Your task to perform on an android device: Open notification settings Image 0: 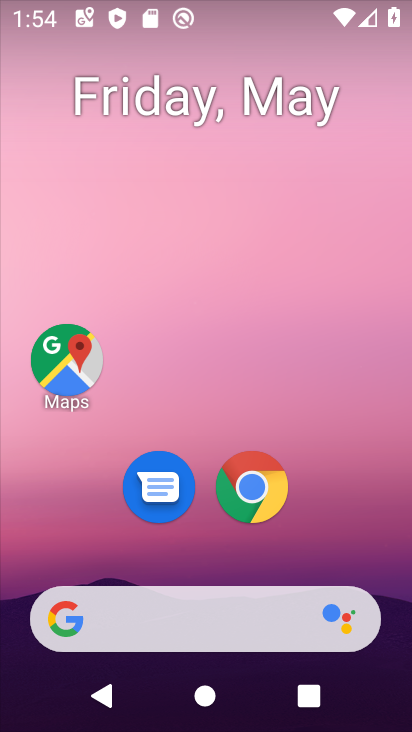
Step 0: drag from (363, 571) to (344, 16)
Your task to perform on an android device: Open notification settings Image 1: 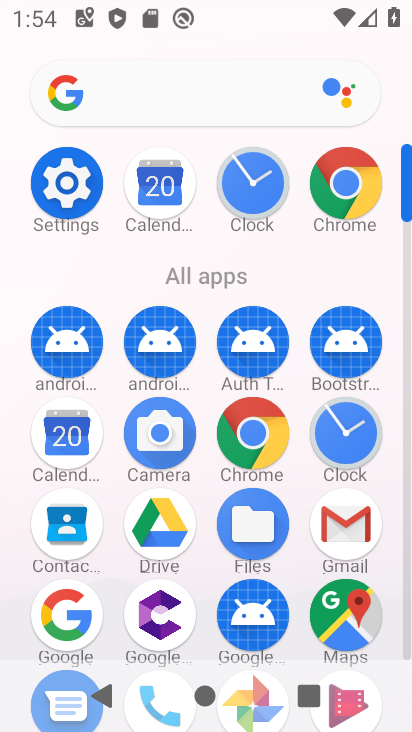
Step 1: click (56, 186)
Your task to perform on an android device: Open notification settings Image 2: 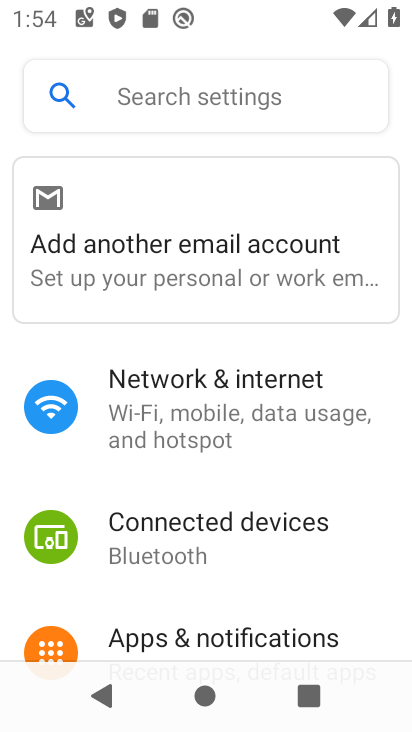
Step 2: drag from (362, 472) to (340, 289)
Your task to perform on an android device: Open notification settings Image 3: 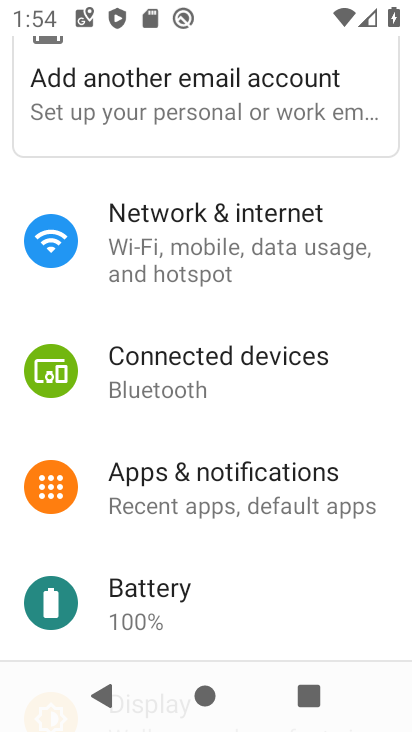
Step 3: click (242, 488)
Your task to perform on an android device: Open notification settings Image 4: 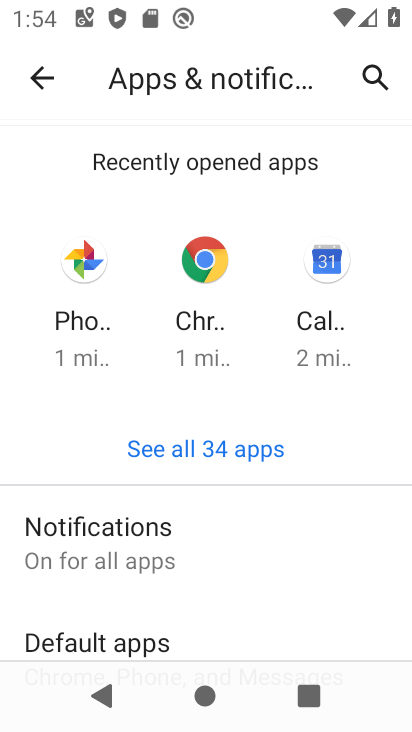
Step 4: task complete